Your task to perform on an android device: turn on the 24-hour format for clock Image 0: 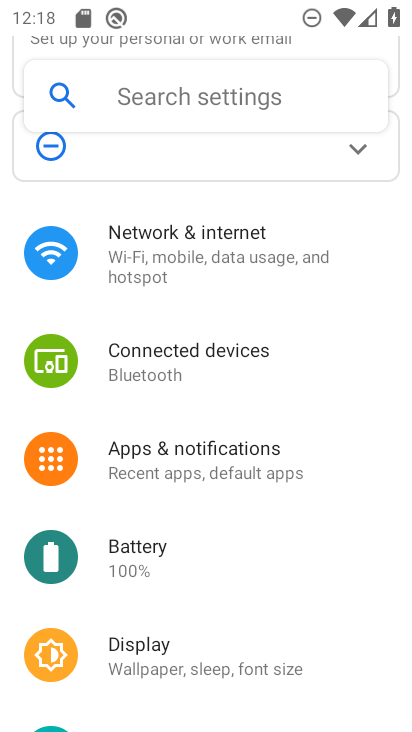
Step 0: press home button
Your task to perform on an android device: turn on the 24-hour format for clock Image 1: 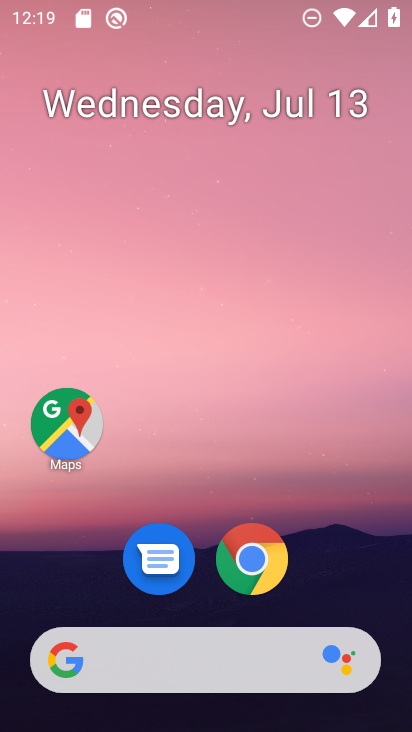
Step 1: drag from (221, 709) to (323, 259)
Your task to perform on an android device: turn on the 24-hour format for clock Image 2: 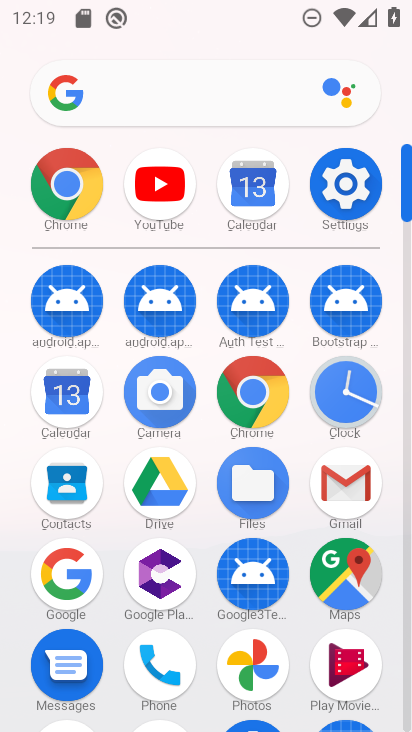
Step 2: click (344, 412)
Your task to perform on an android device: turn on the 24-hour format for clock Image 3: 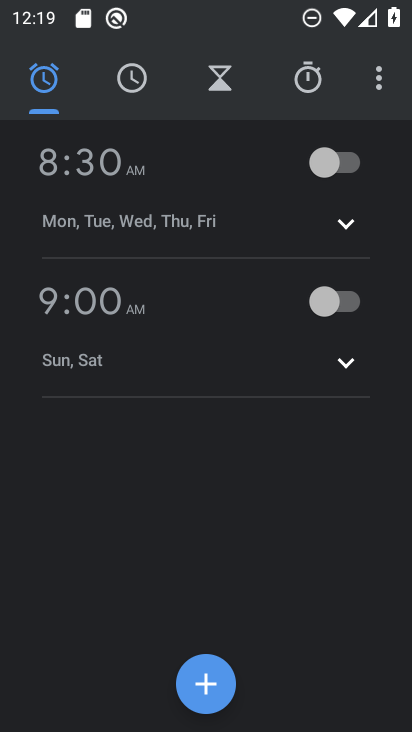
Step 3: click (386, 88)
Your task to perform on an android device: turn on the 24-hour format for clock Image 4: 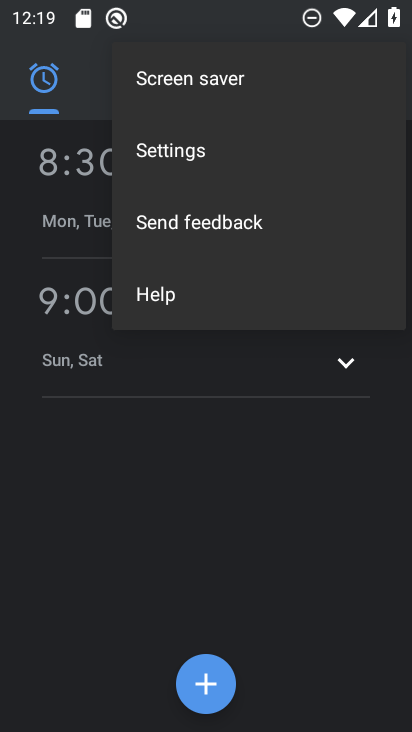
Step 4: click (197, 156)
Your task to perform on an android device: turn on the 24-hour format for clock Image 5: 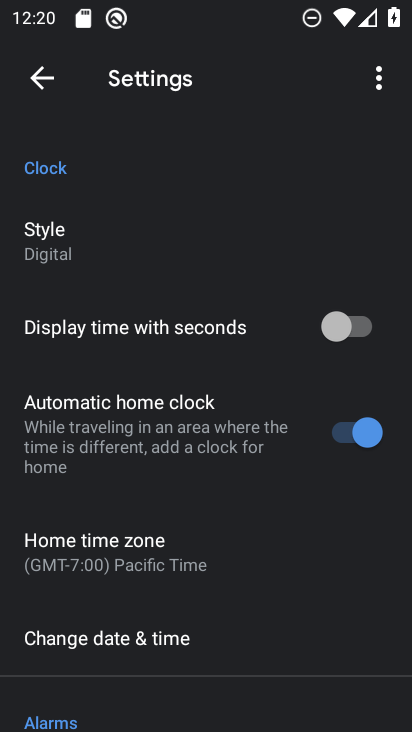
Step 5: click (151, 640)
Your task to perform on an android device: turn on the 24-hour format for clock Image 6: 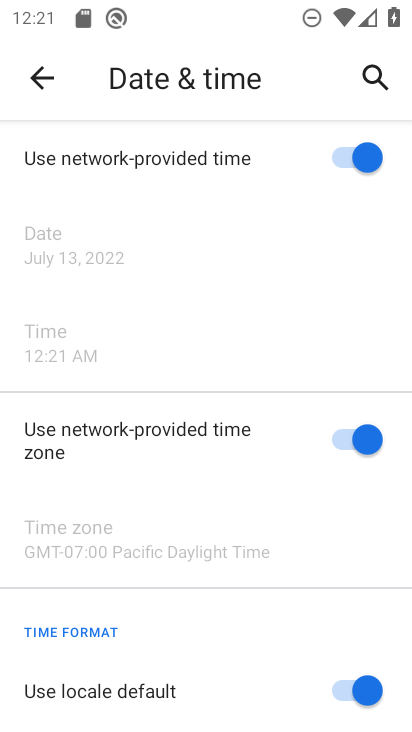
Step 6: task complete